Your task to perform on an android device: toggle javascript in the chrome app Image 0: 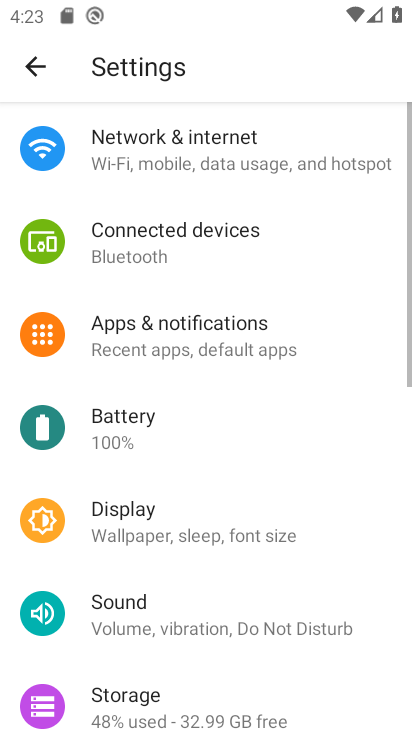
Step 0: press home button
Your task to perform on an android device: toggle javascript in the chrome app Image 1: 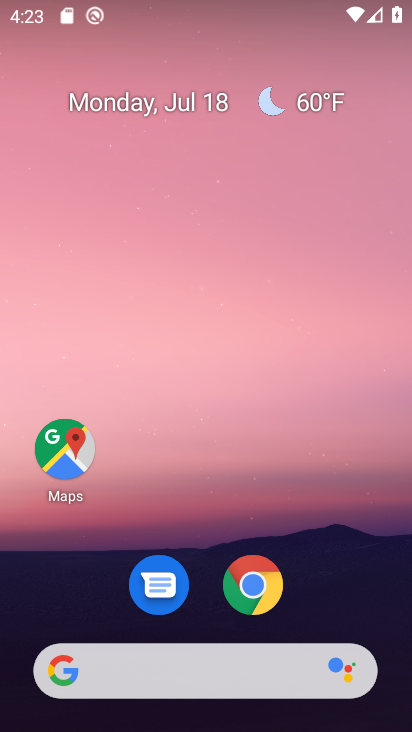
Step 1: click (274, 597)
Your task to perform on an android device: toggle javascript in the chrome app Image 2: 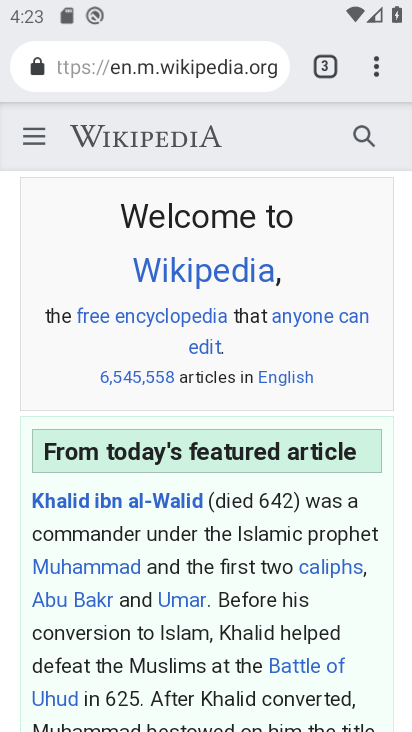
Step 2: click (375, 69)
Your task to perform on an android device: toggle javascript in the chrome app Image 3: 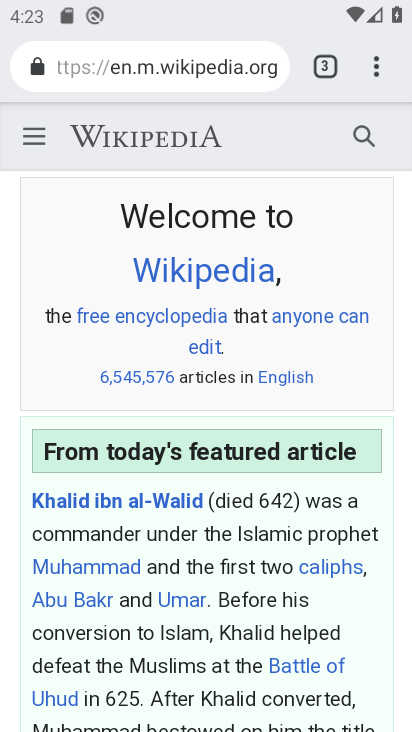
Step 3: click (373, 59)
Your task to perform on an android device: toggle javascript in the chrome app Image 4: 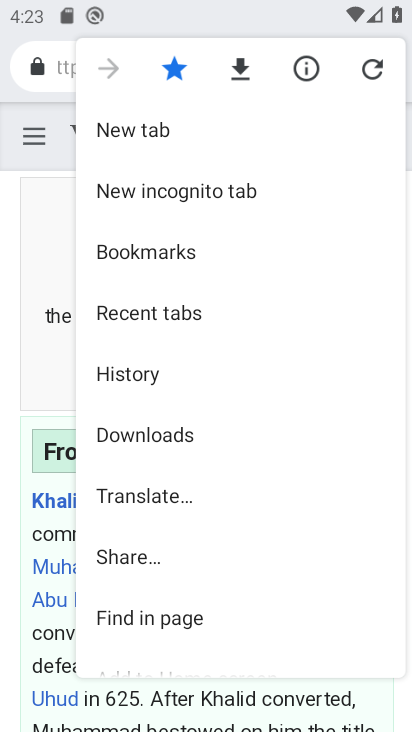
Step 4: drag from (217, 576) to (279, 265)
Your task to perform on an android device: toggle javascript in the chrome app Image 5: 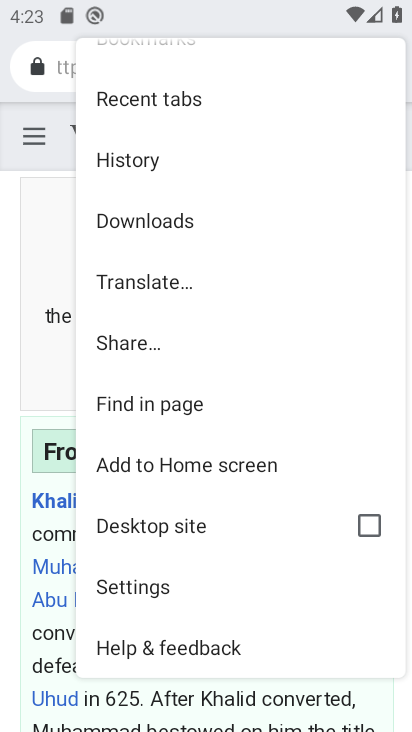
Step 5: click (166, 586)
Your task to perform on an android device: toggle javascript in the chrome app Image 6: 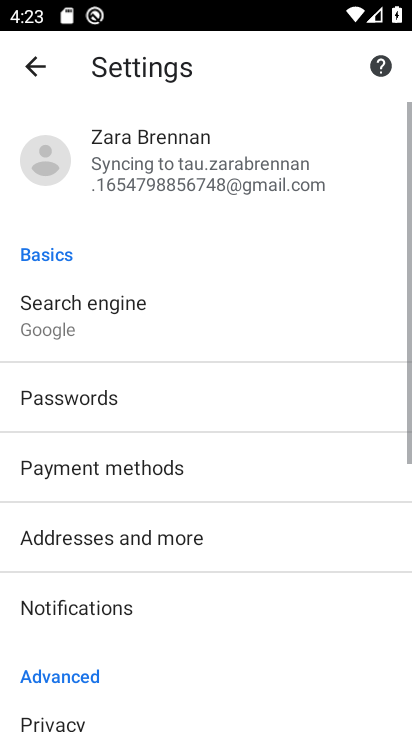
Step 6: drag from (221, 611) to (251, 341)
Your task to perform on an android device: toggle javascript in the chrome app Image 7: 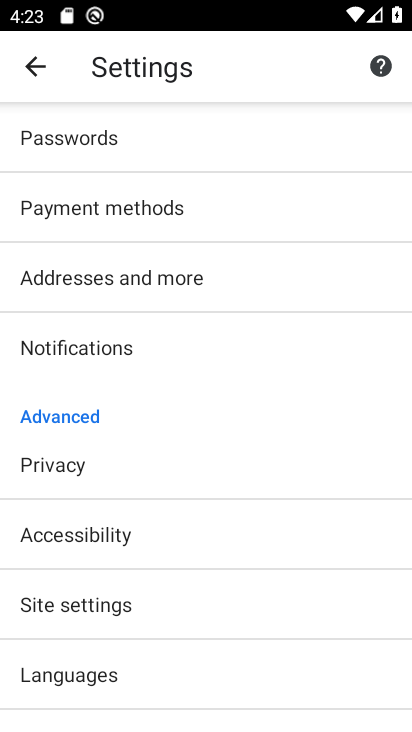
Step 7: click (128, 612)
Your task to perform on an android device: toggle javascript in the chrome app Image 8: 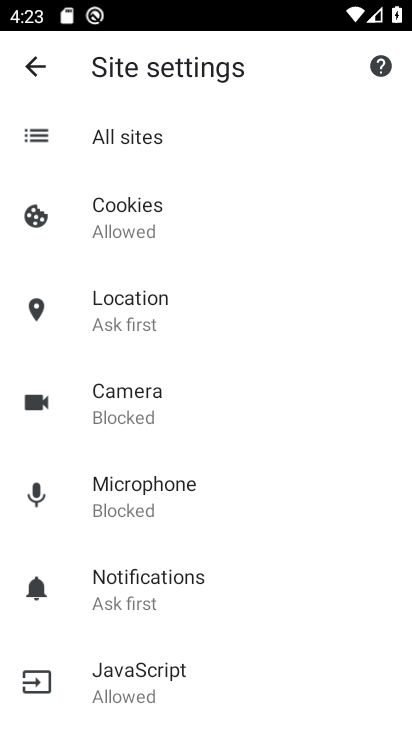
Step 8: click (179, 689)
Your task to perform on an android device: toggle javascript in the chrome app Image 9: 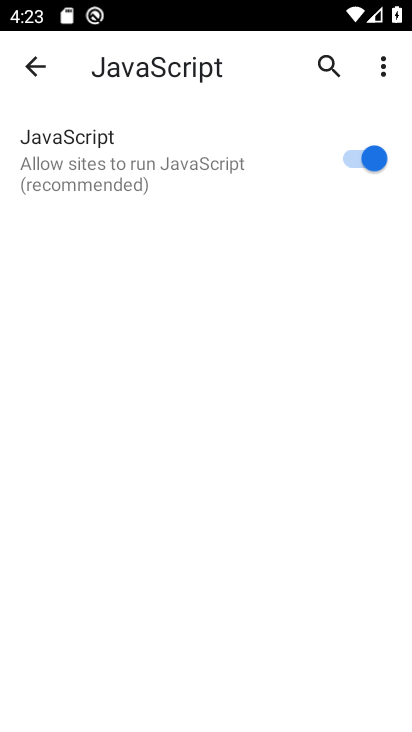
Step 9: click (354, 153)
Your task to perform on an android device: toggle javascript in the chrome app Image 10: 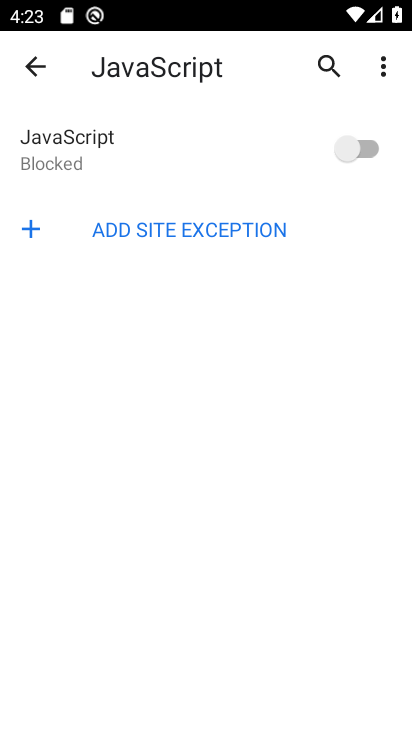
Step 10: task complete